Your task to perform on an android device: open a new tab in the chrome app Image 0: 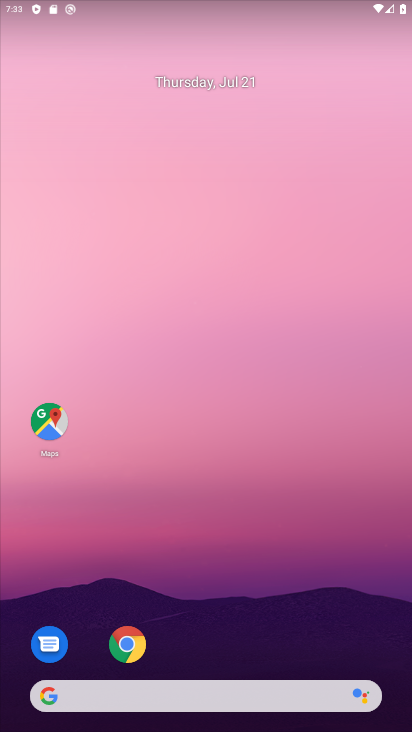
Step 0: drag from (327, 586) to (338, 86)
Your task to perform on an android device: open a new tab in the chrome app Image 1: 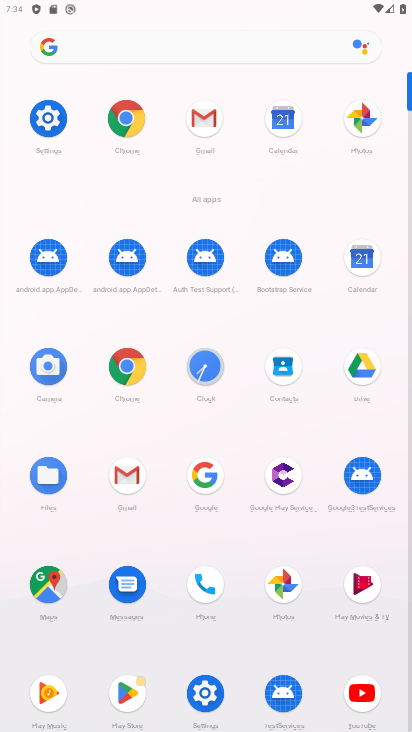
Step 1: click (129, 362)
Your task to perform on an android device: open a new tab in the chrome app Image 2: 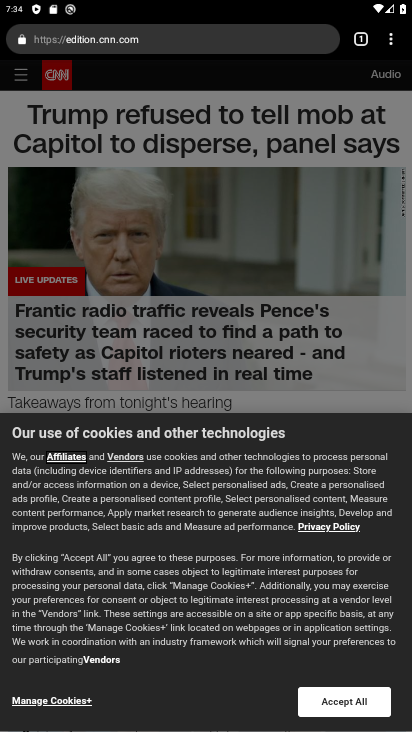
Step 2: click (390, 44)
Your task to perform on an android device: open a new tab in the chrome app Image 3: 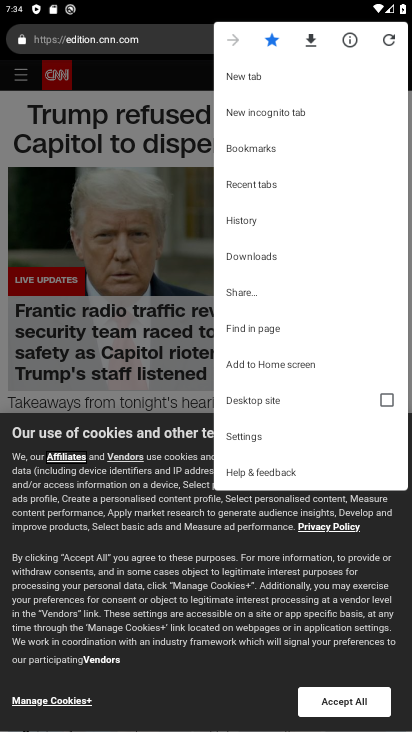
Step 3: click (257, 73)
Your task to perform on an android device: open a new tab in the chrome app Image 4: 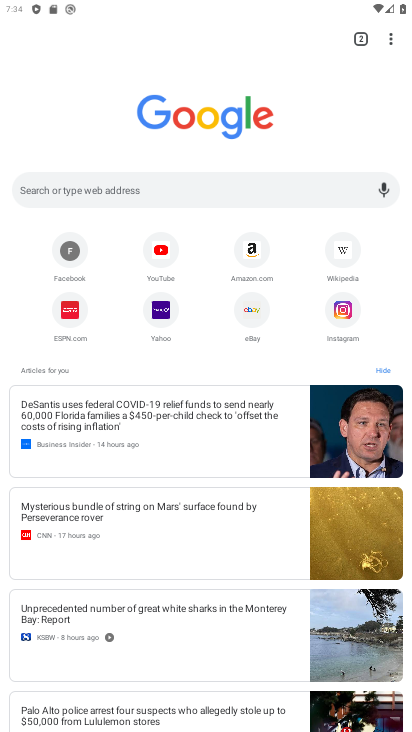
Step 4: task complete